Your task to perform on an android device: open chrome privacy settings Image 0: 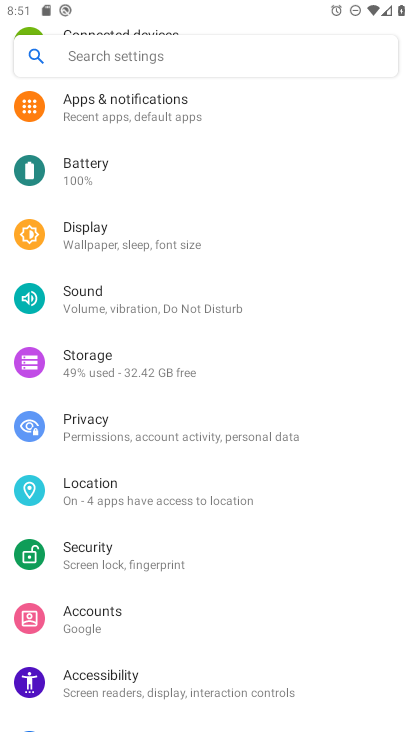
Step 0: press home button
Your task to perform on an android device: open chrome privacy settings Image 1: 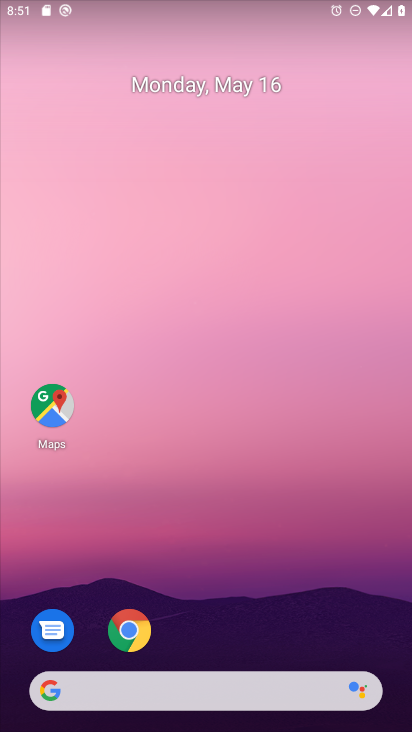
Step 1: click (133, 626)
Your task to perform on an android device: open chrome privacy settings Image 2: 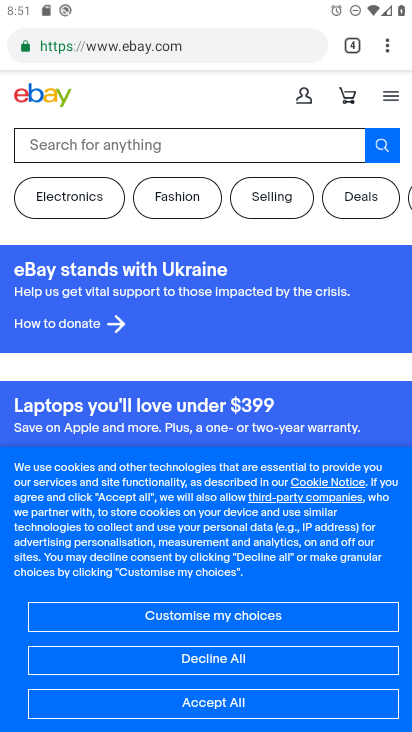
Step 2: click (385, 46)
Your task to perform on an android device: open chrome privacy settings Image 3: 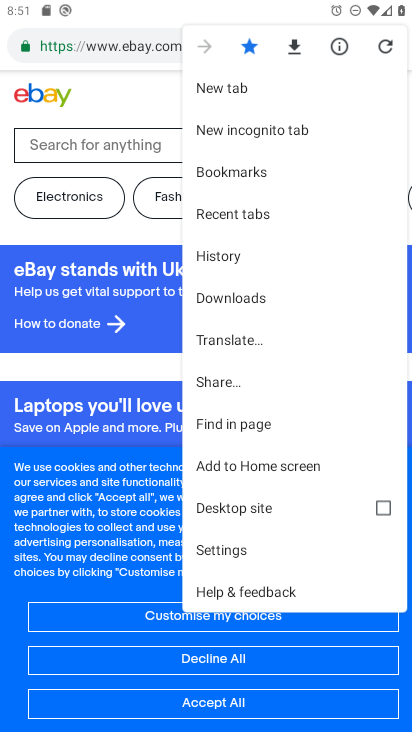
Step 3: click (237, 552)
Your task to perform on an android device: open chrome privacy settings Image 4: 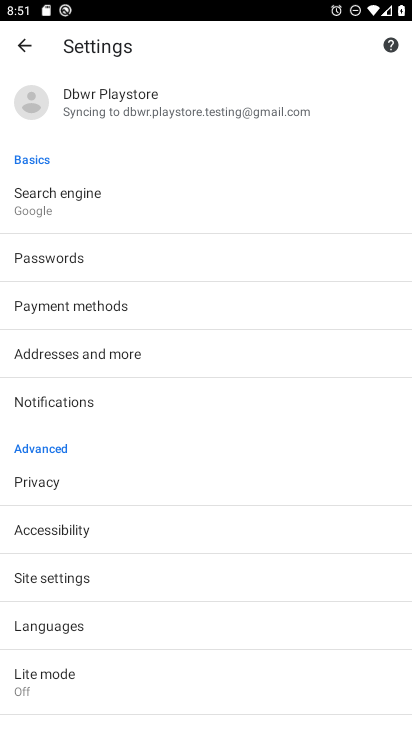
Step 4: click (96, 488)
Your task to perform on an android device: open chrome privacy settings Image 5: 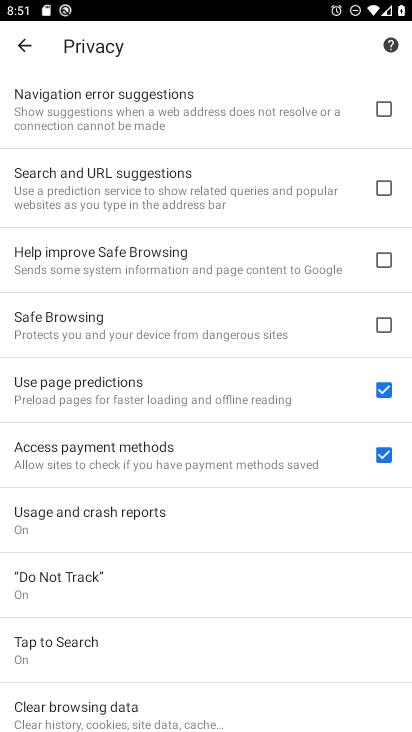
Step 5: task complete